Your task to perform on an android device: Turn off the flashlight Image 0: 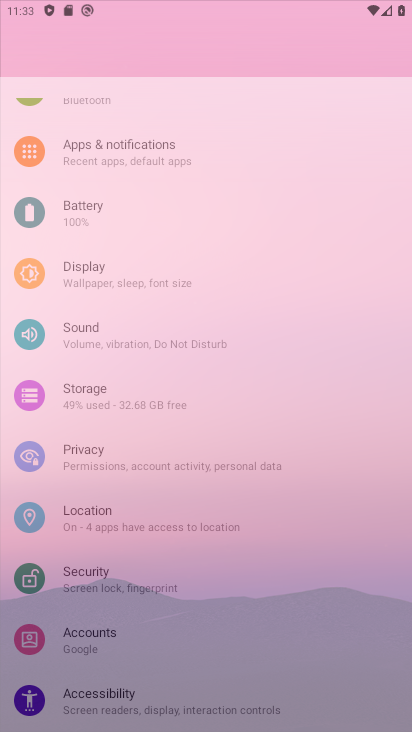
Step 0: drag from (283, 130) to (203, 72)
Your task to perform on an android device: Turn off the flashlight Image 1: 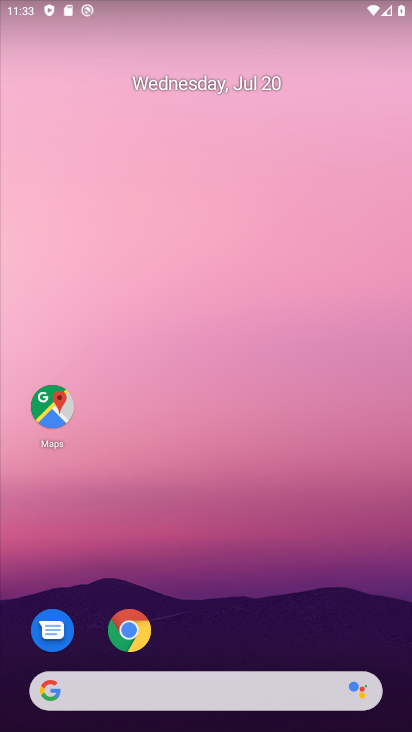
Step 1: drag from (163, 667) to (207, 241)
Your task to perform on an android device: Turn off the flashlight Image 2: 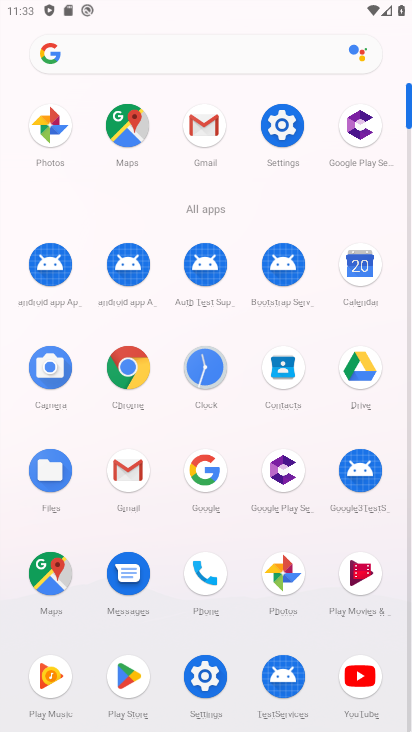
Step 2: click (276, 126)
Your task to perform on an android device: Turn off the flashlight Image 3: 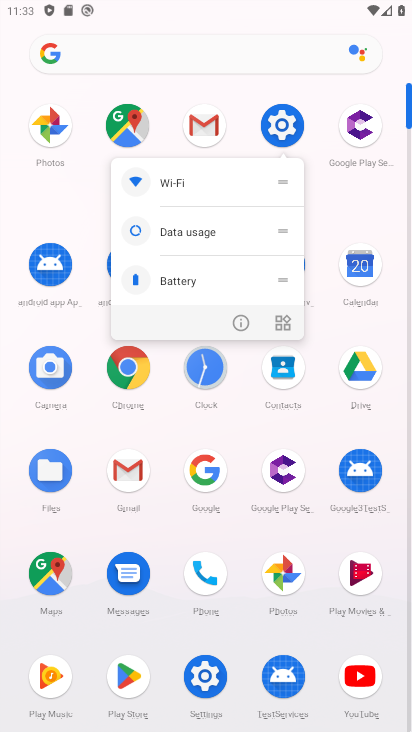
Step 3: click (234, 325)
Your task to perform on an android device: Turn off the flashlight Image 4: 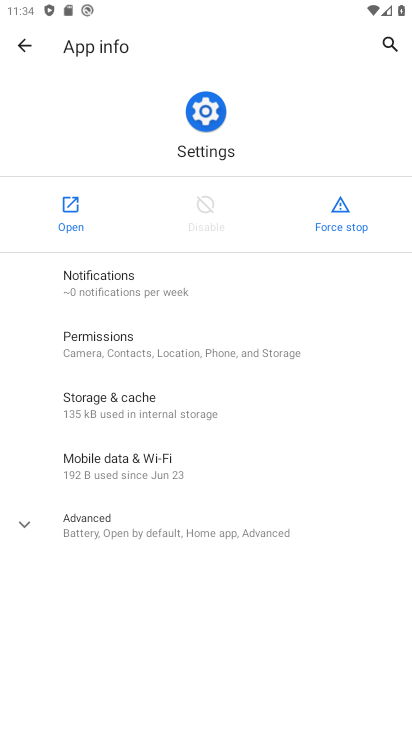
Step 4: click (71, 210)
Your task to perform on an android device: Turn off the flashlight Image 5: 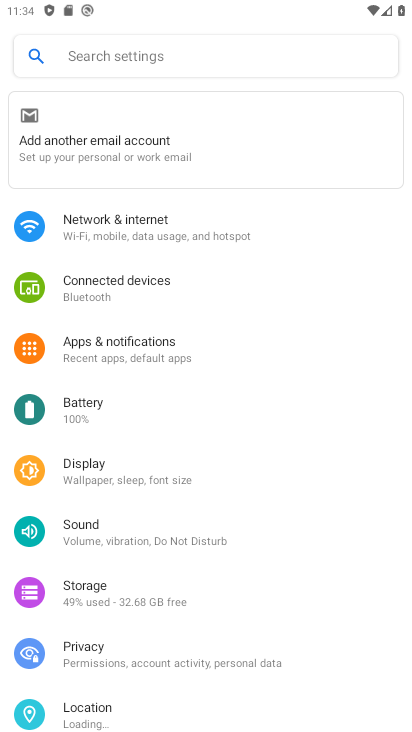
Step 5: click (100, 50)
Your task to perform on an android device: Turn off the flashlight Image 6: 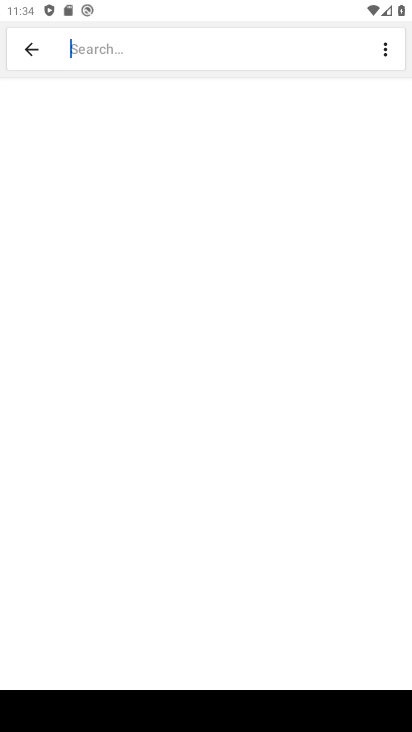
Step 6: type "flashlight"
Your task to perform on an android device: Turn off the flashlight Image 7: 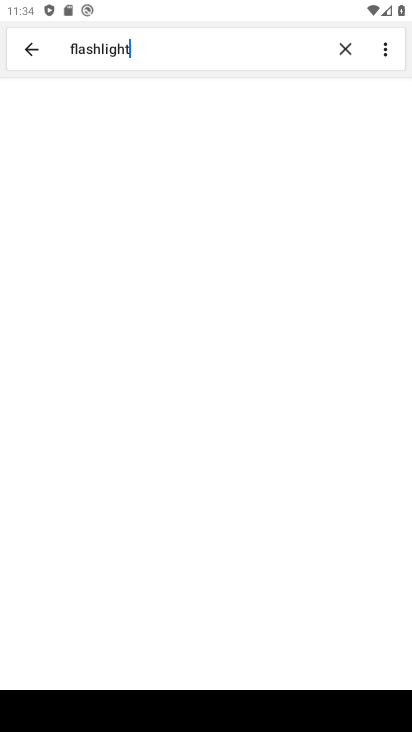
Step 7: type ""
Your task to perform on an android device: Turn off the flashlight Image 8: 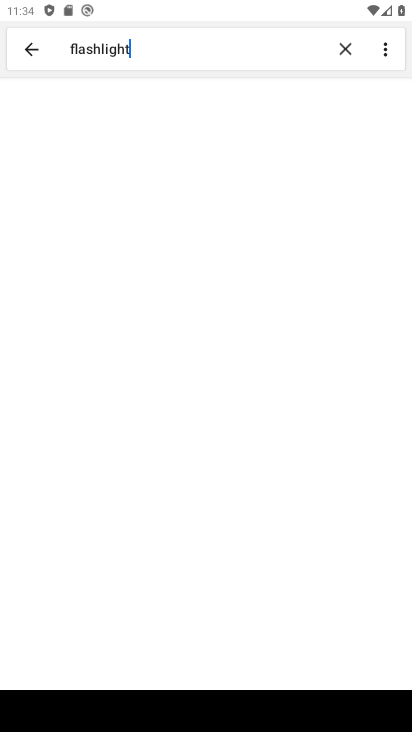
Step 8: click (126, 87)
Your task to perform on an android device: Turn off the flashlight Image 9: 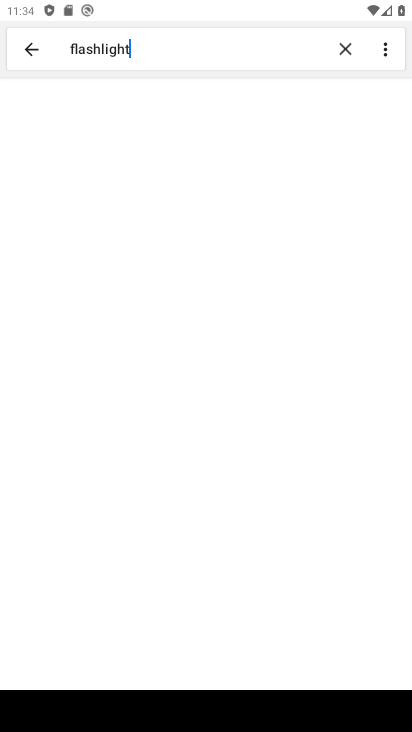
Step 9: click (139, 98)
Your task to perform on an android device: Turn off the flashlight Image 10: 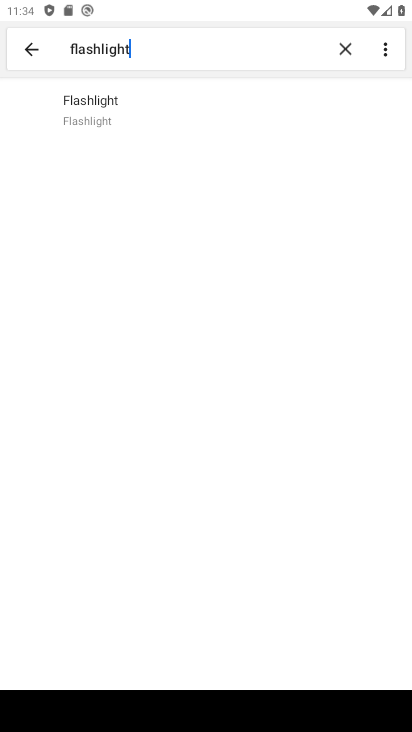
Step 10: click (139, 98)
Your task to perform on an android device: Turn off the flashlight Image 11: 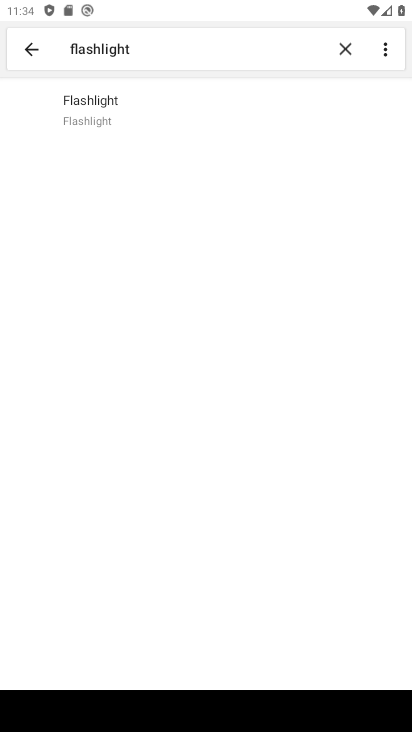
Step 11: click (153, 120)
Your task to perform on an android device: Turn off the flashlight Image 12: 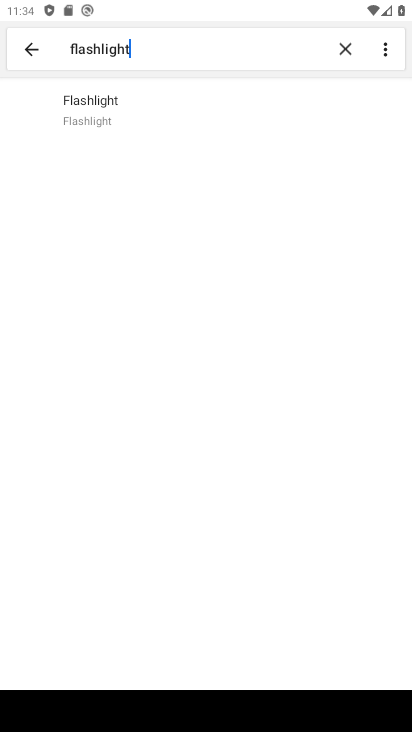
Step 12: task complete